Your task to perform on an android device: Open Google Maps and go to "Timeline" Image 0: 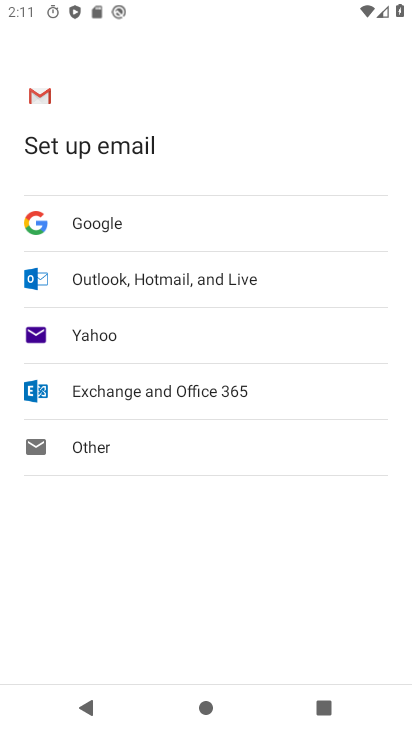
Step 0: press home button
Your task to perform on an android device: Open Google Maps and go to "Timeline" Image 1: 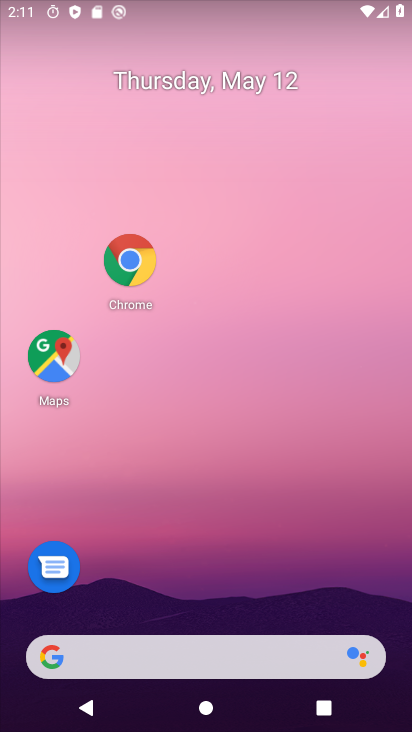
Step 1: click (55, 350)
Your task to perform on an android device: Open Google Maps and go to "Timeline" Image 2: 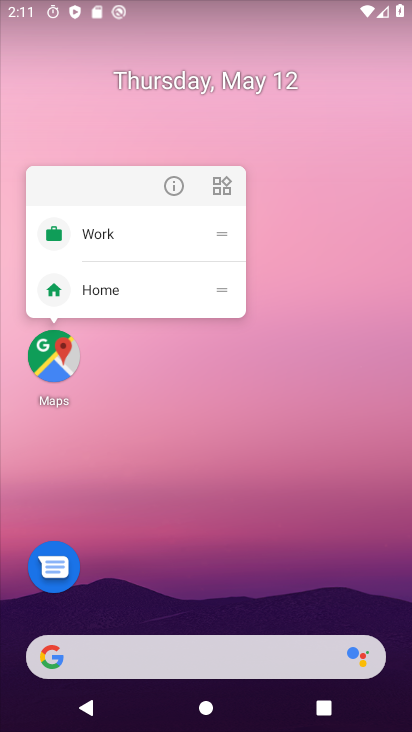
Step 2: click (56, 366)
Your task to perform on an android device: Open Google Maps and go to "Timeline" Image 3: 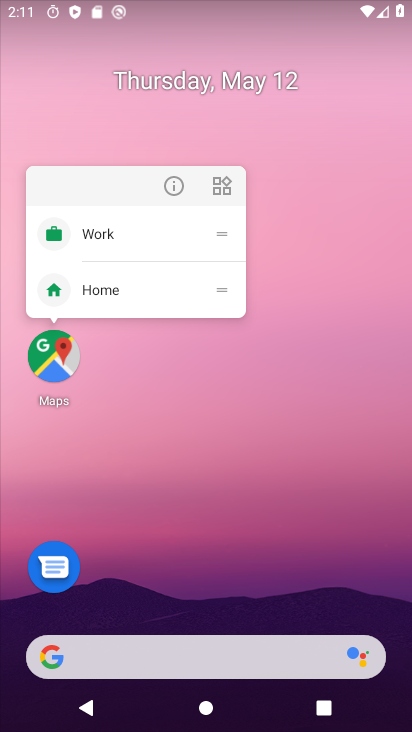
Step 3: click (54, 363)
Your task to perform on an android device: Open Google Maps and go to "Timeline" Image 4: 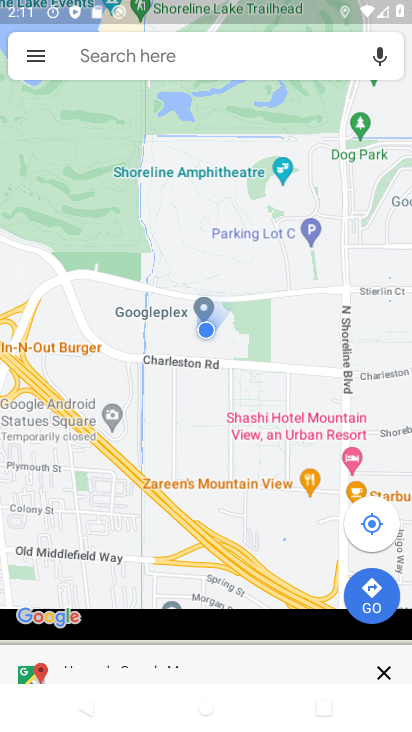
Step 4: click (38, 58)
Your task to perform on an android device: Open Google Maps and go to "Timeline" Image 5: 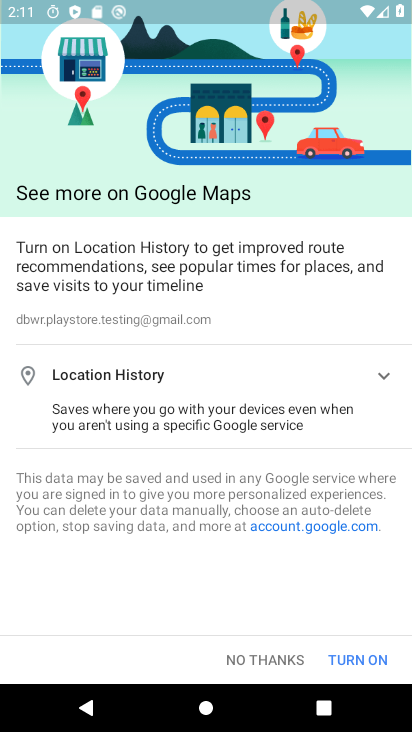
Step 5: click (377, 659)
Your task to perform on an android device: Open Google Maps and go to "Timeline" Image 6: 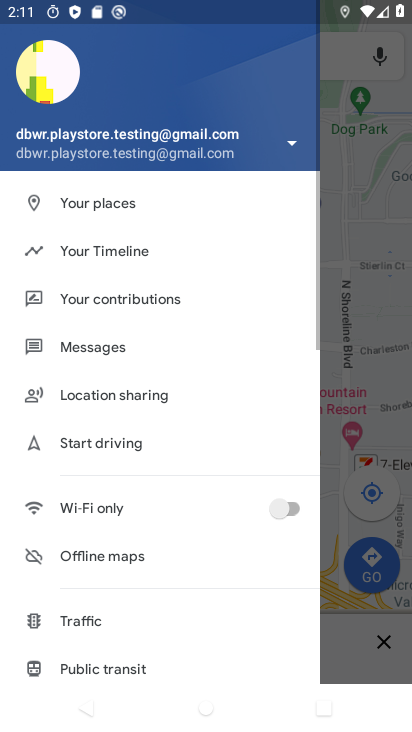
Step 6: click (112, 247)
Your task to perform on an android device: Open Google Maps and go to "Timeline" Image 7: 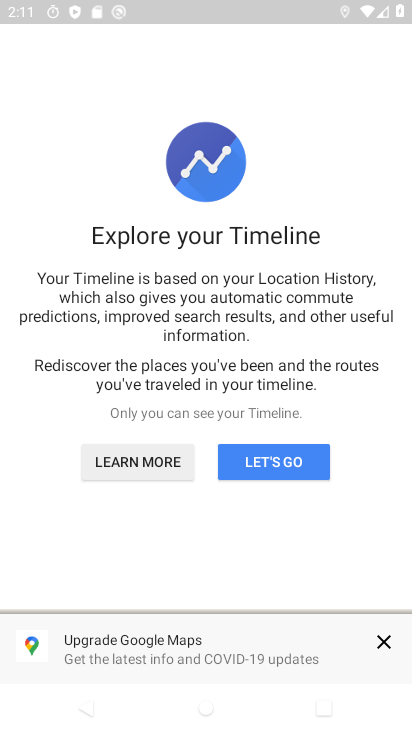
Step 7: click (268, 462)
Your task to perform on an android device: Open Google Maps and go to "Timeline" Image 8: 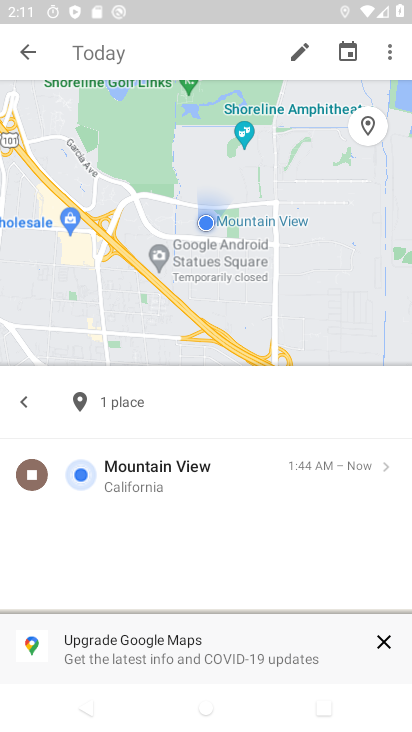
Step 8: task complete